Your task to perform on an android device: Open the map Image 0: 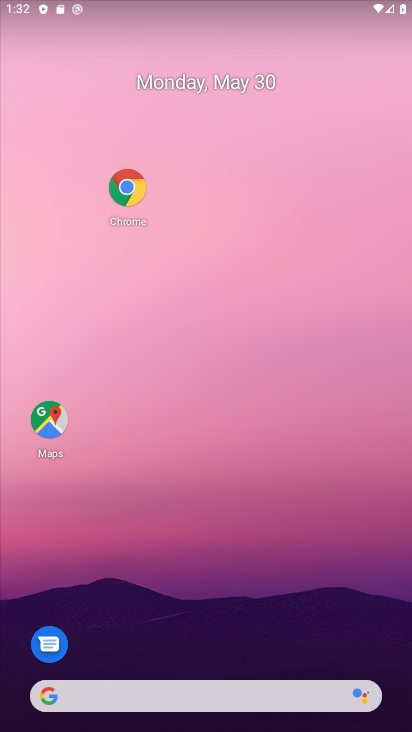
Step 0: click (53, 429)
Your task to perform on an android device: Open the map Image 1: 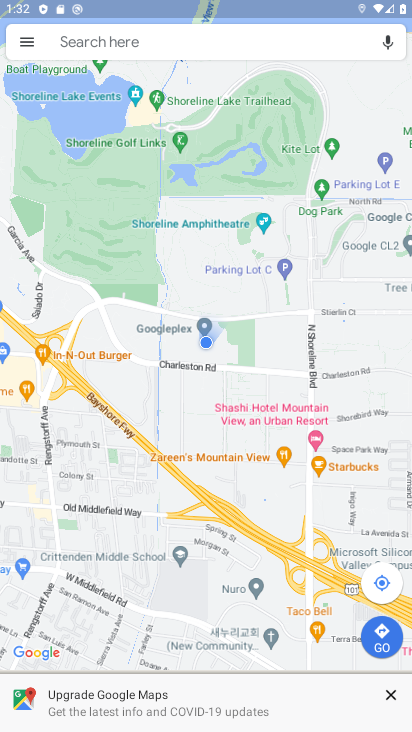
Step 1: task complete